Your task to perform on an android device: turn on notifications settings in the gmail app Image 0: 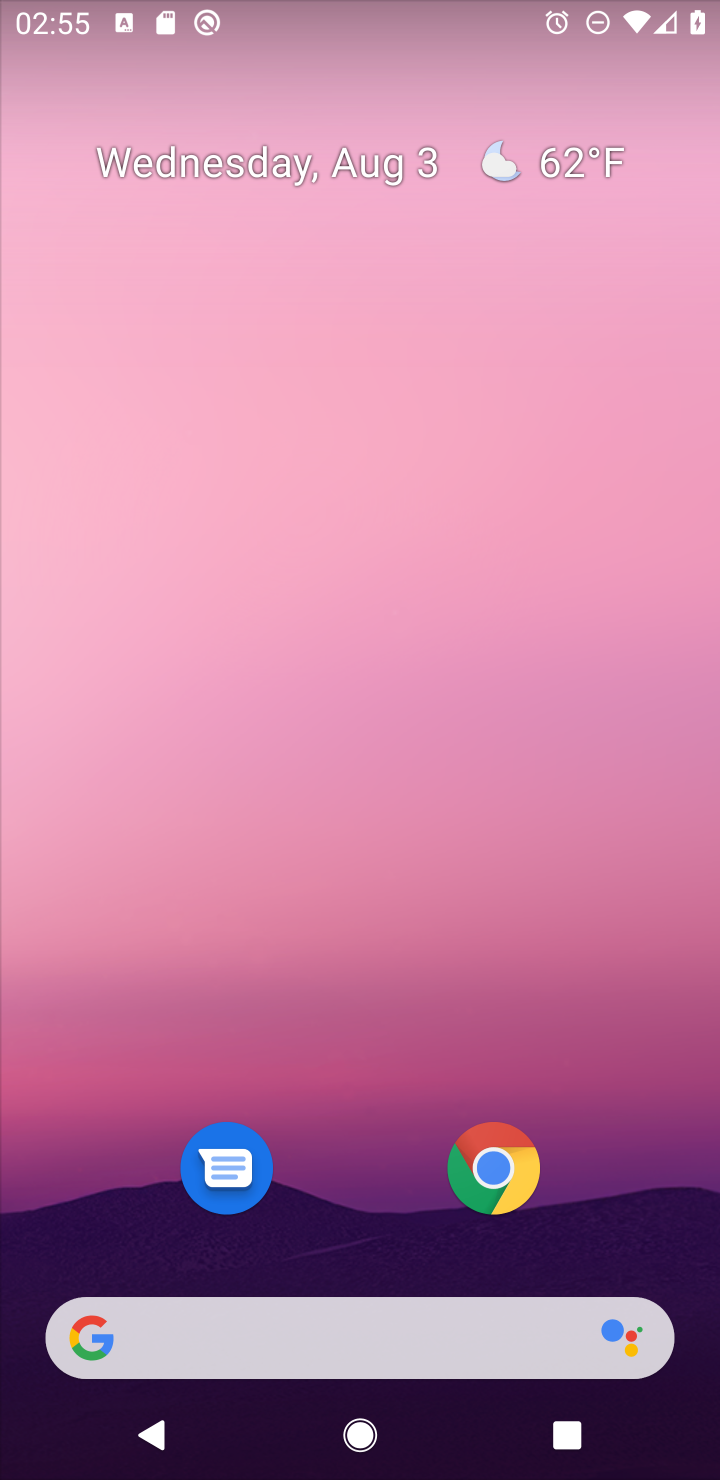
Step 0: drag from (684, 1105) to (641, 136)
Your task to perform on an android device: turn on notifications settings in the gmail app Image 1: 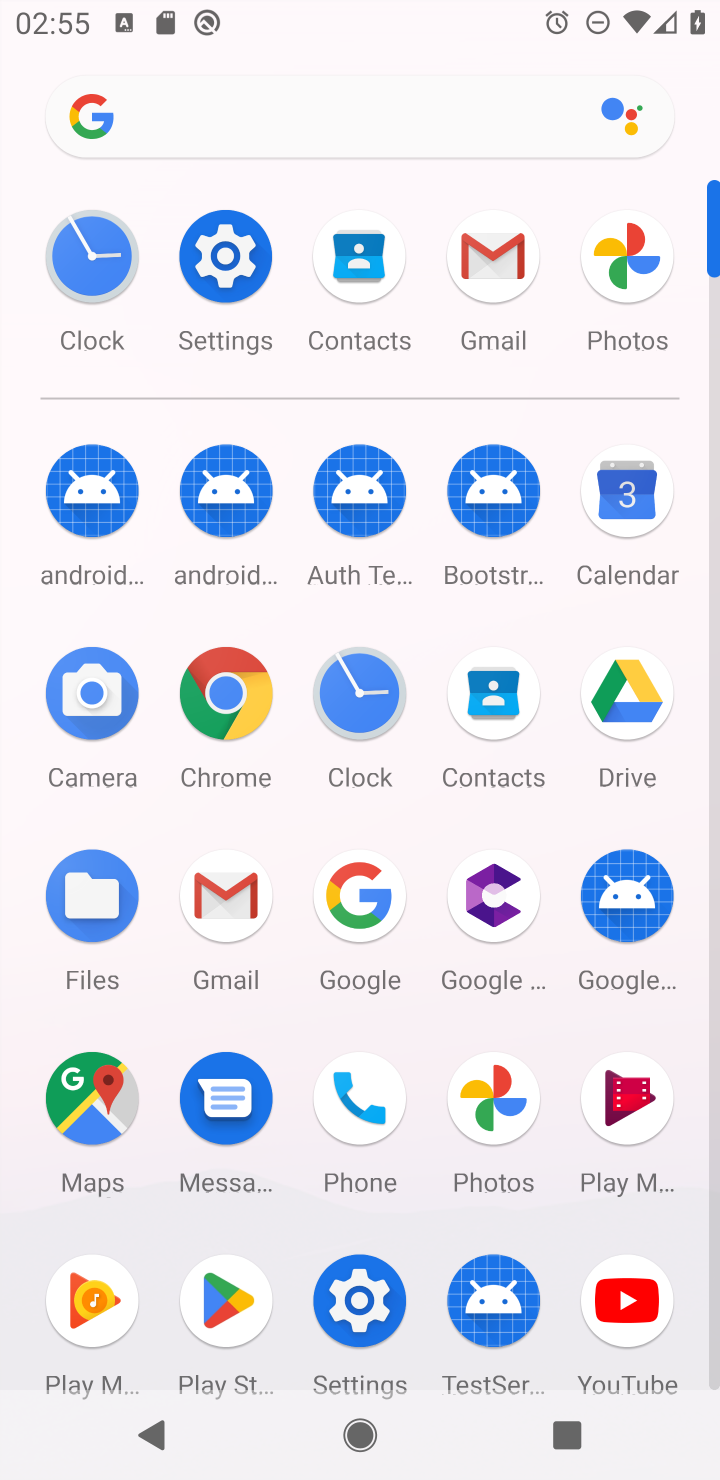
Step 1: click (223, 902)
Your task to perform on an android device: turn on notifications settings in the gmail app Image 2: 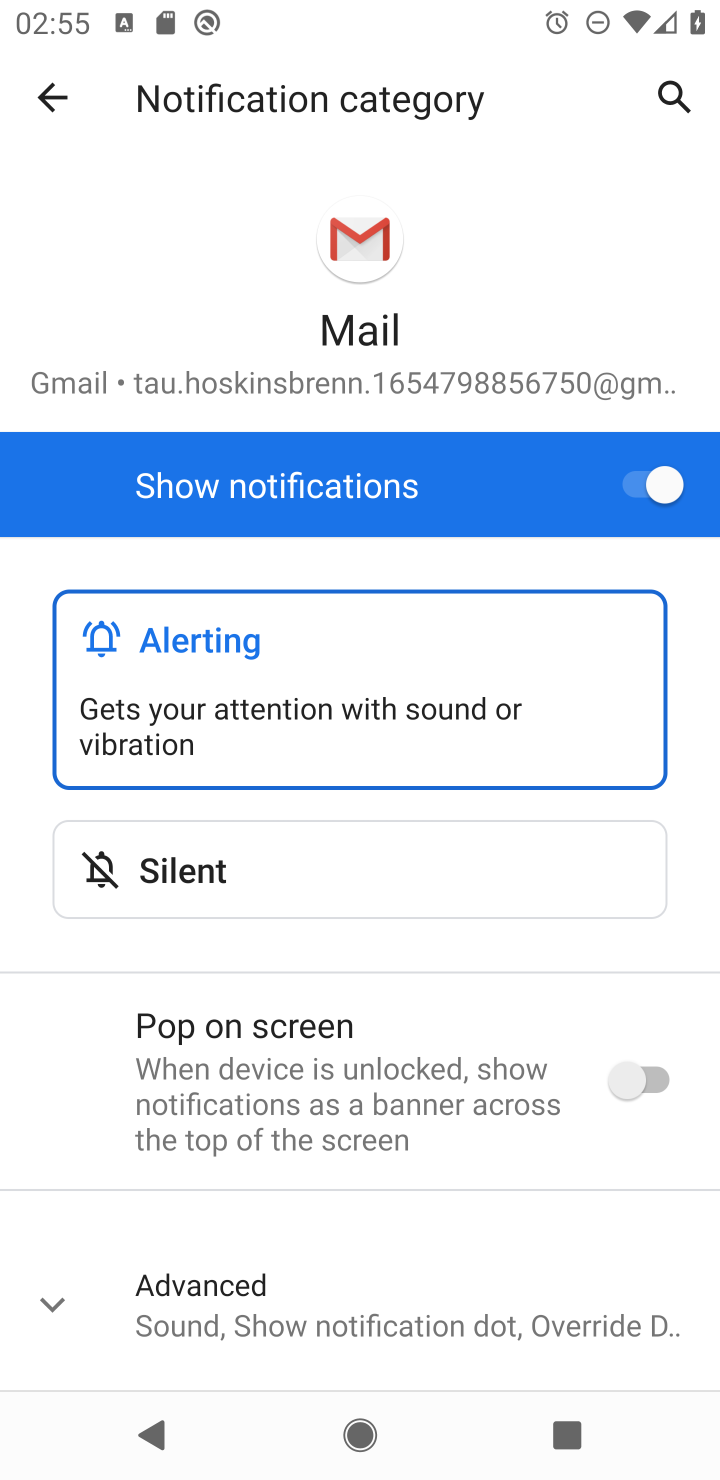
Step 2: task complete